Your task to perform on an android device: What is the recent news? Image 0: 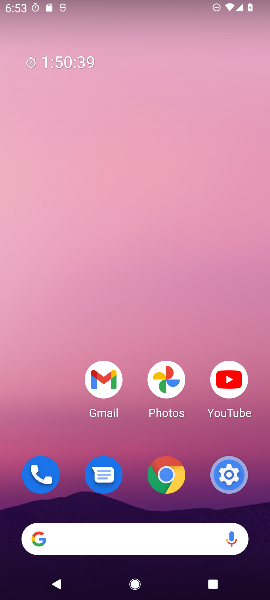
Step 0: press home button
Your task to perform on an android device: What is the recent news? Image 1: 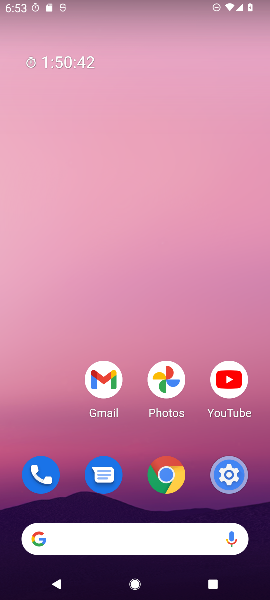
Step 1: task complete